Your task to perform on an android device: Go to Yahoo.com Image 0: 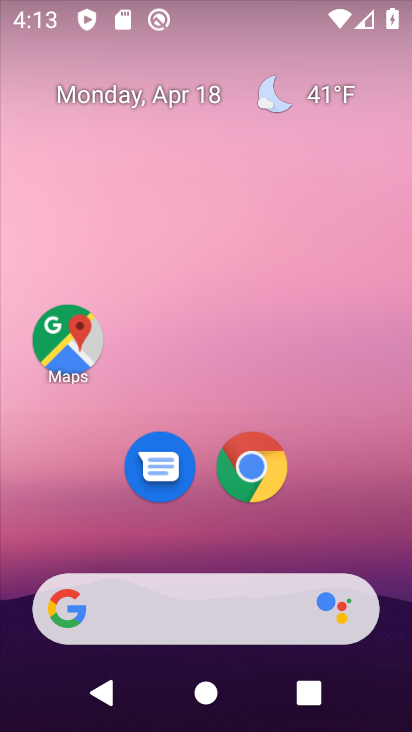
Step 0: click (218, 602)
Your task to perform on an android device: Go to Yahoo.com Image 1: 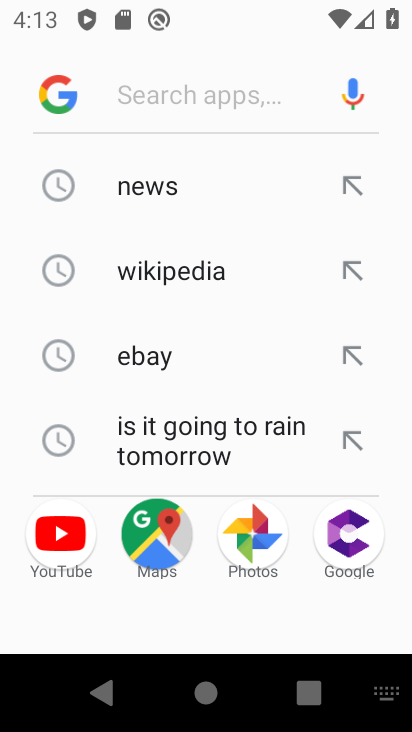
Step 1: type "Yahoo.com"
Your task to perform on an android device: Go to Yahoo.com Image 2: 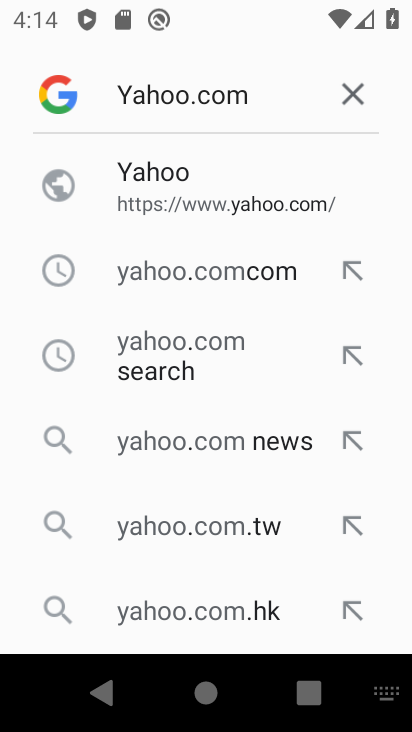
Step 2: click (207, 204)
Your task to perform on an android device: Go to Yahoo.com Image 3: 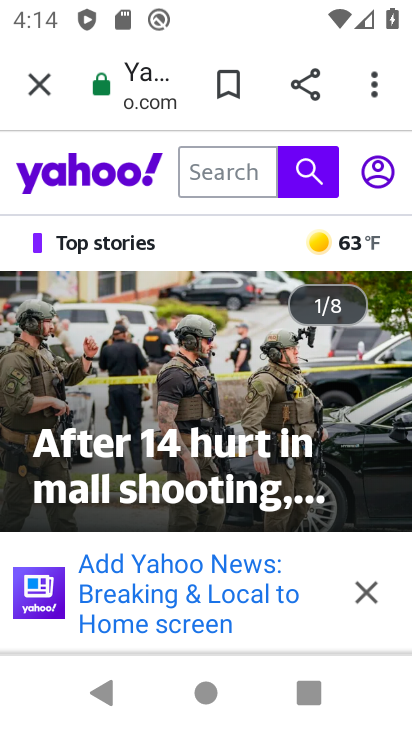
Step 3: task complete